Your task to perform on an android device: Open Google Chrome and open the bookmarks view Image 0: 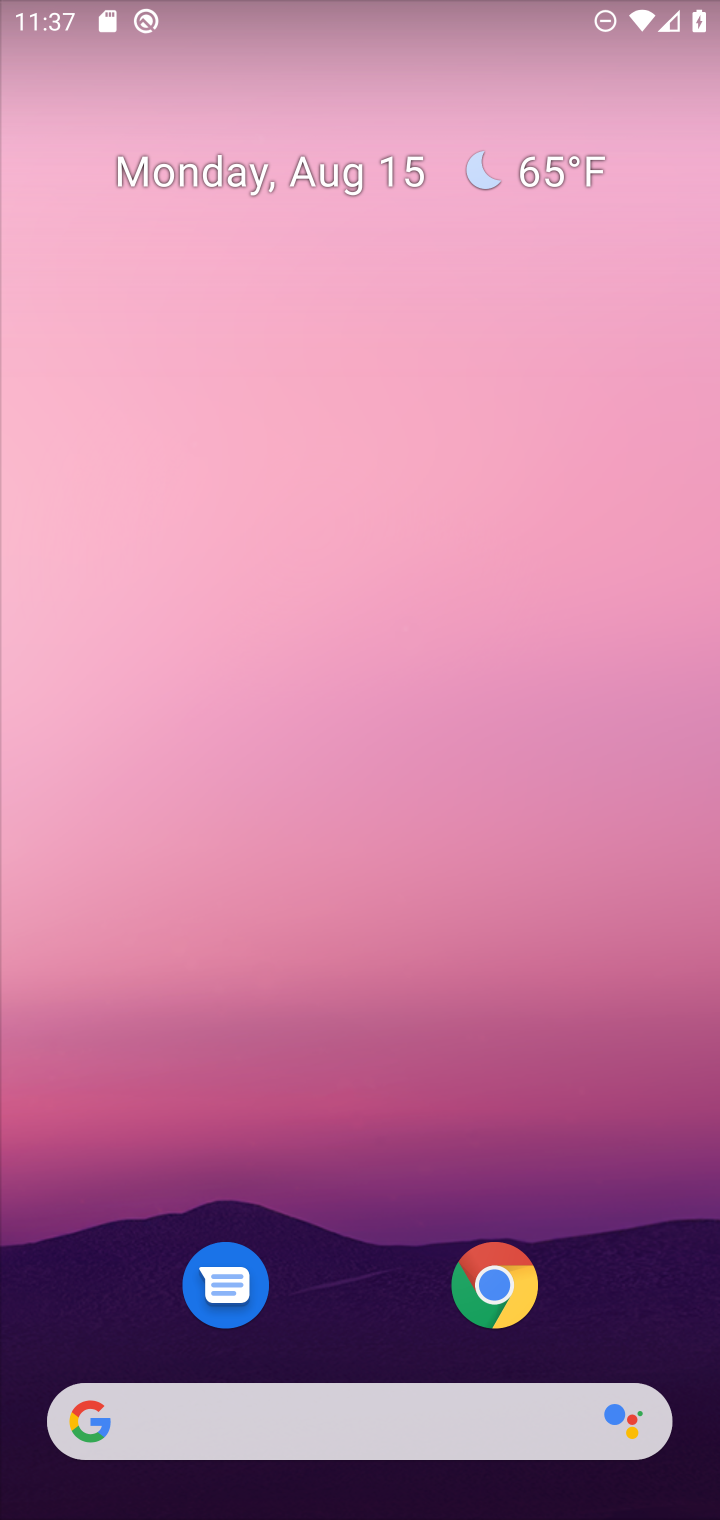
Step 0: click (489, 1269)
Your task to perform on an android device: Open Google Chrome and open the bookmarks view Image 1: 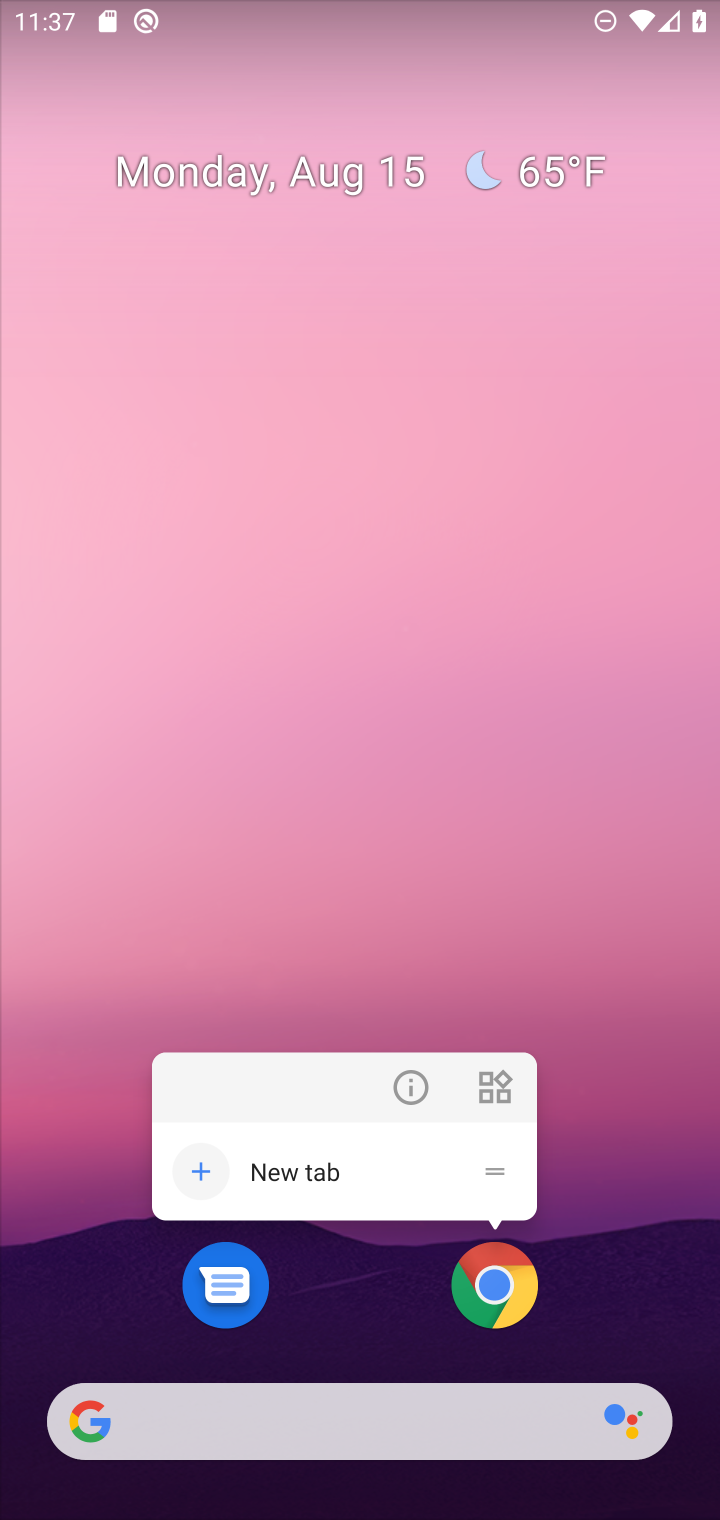
Step 1: click (582, 1183)
Your task to perform on an android device: Open Google Chrome and open the bookmarks view Image 2: 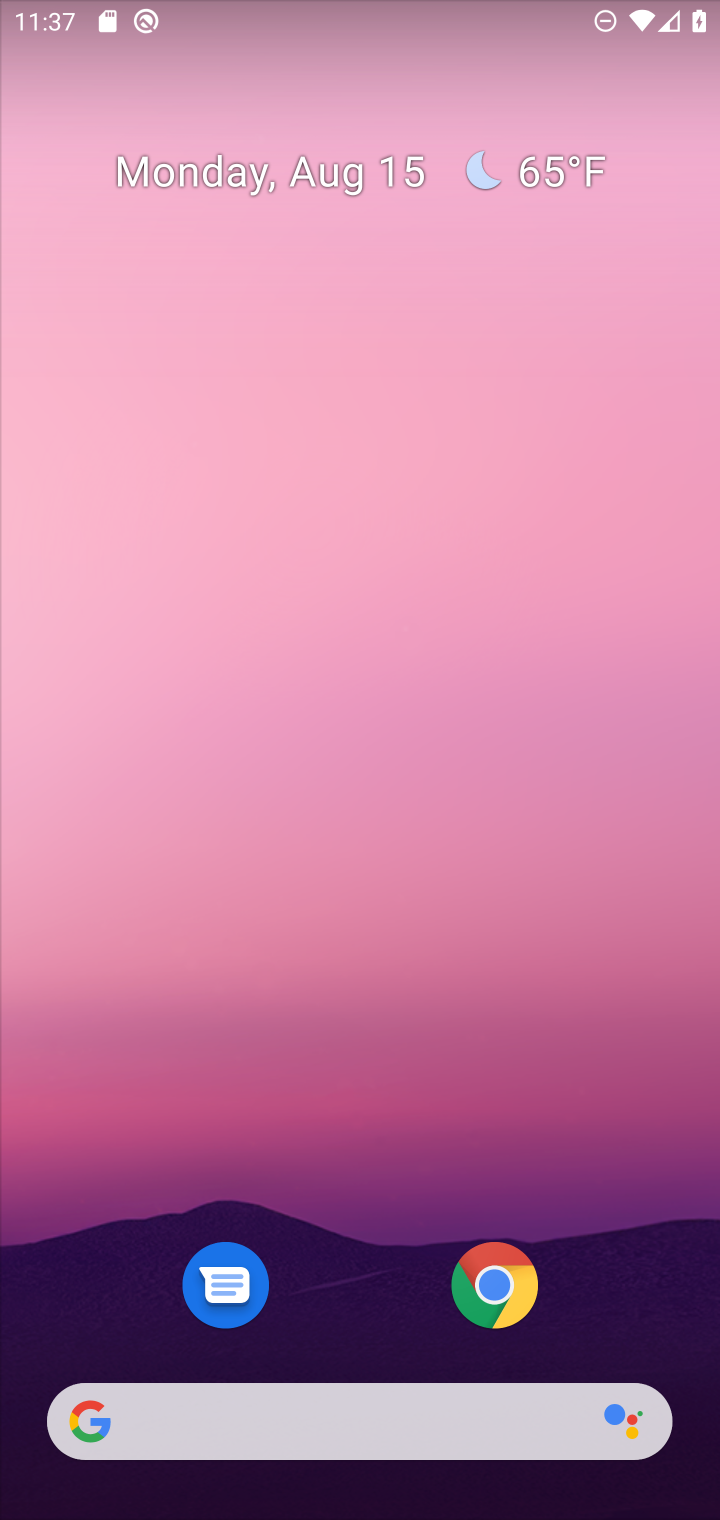
Step 2: drag from (584, 1321) to (614, 42)
Your task to perform on an android device: Open Google Chrome and open the bookmarks view Image 3: 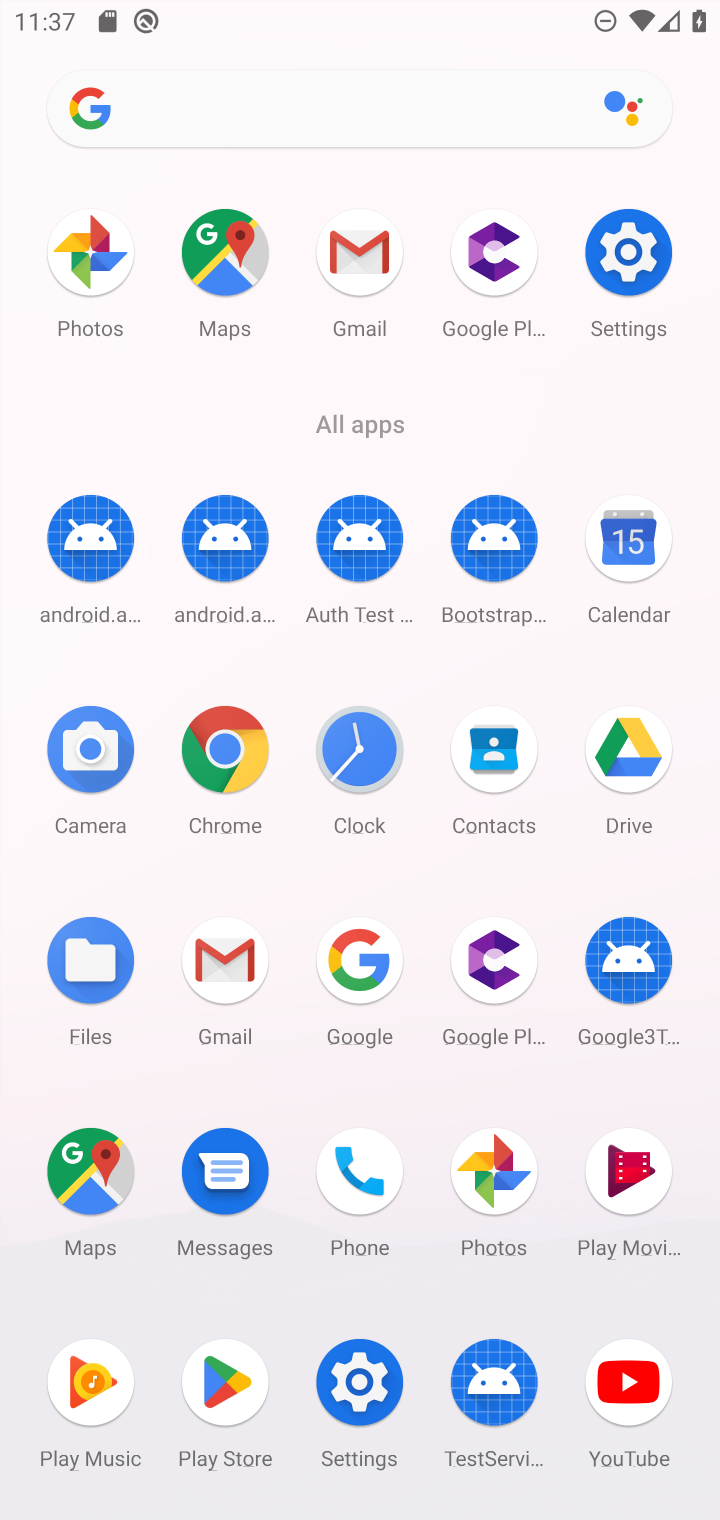
Step 3: click (222, 733)
Your task to perform on an android device: Open Google Chrome and open the bookmarks view Image 4: 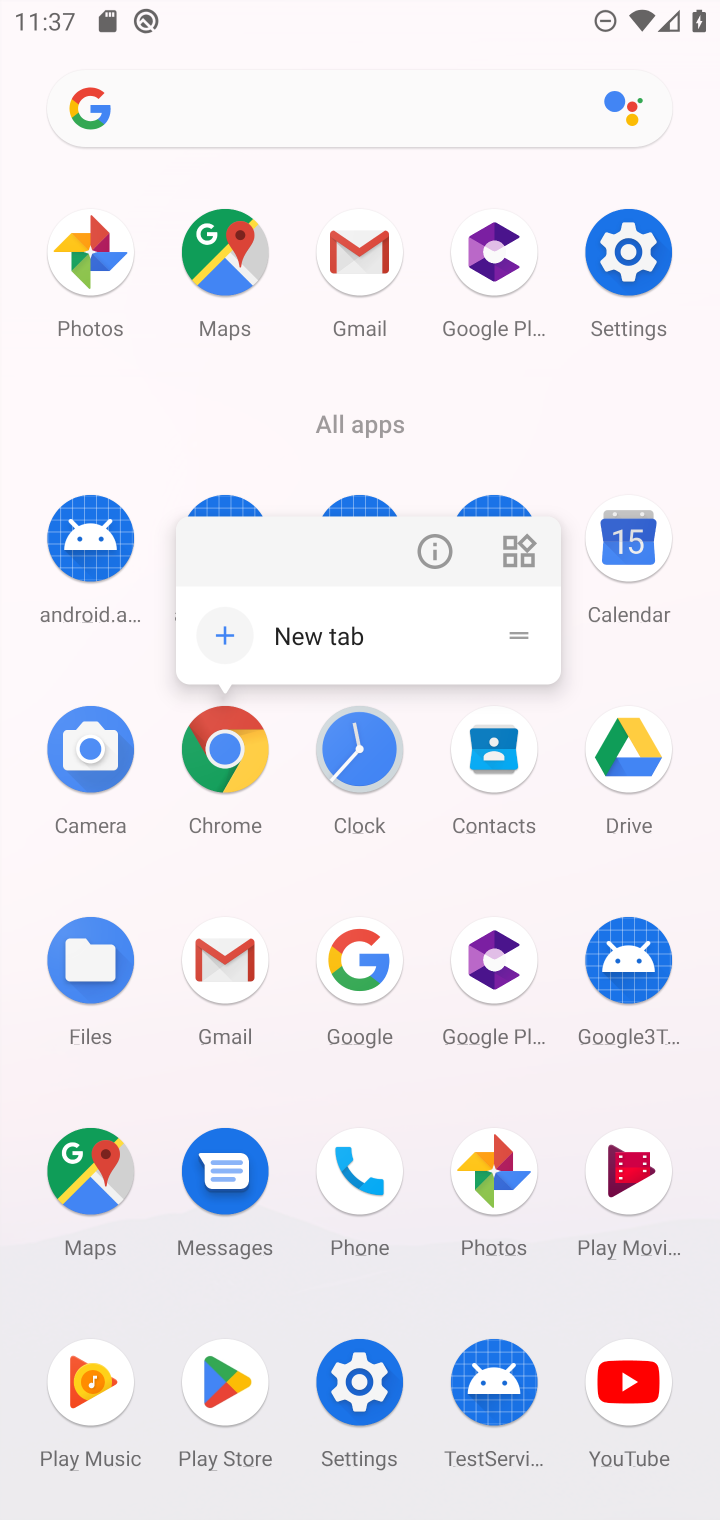
Step 4: click (222, 733)
Your task to perform on an android device: Open Google Chrome and open the bookmarks view Image 5: 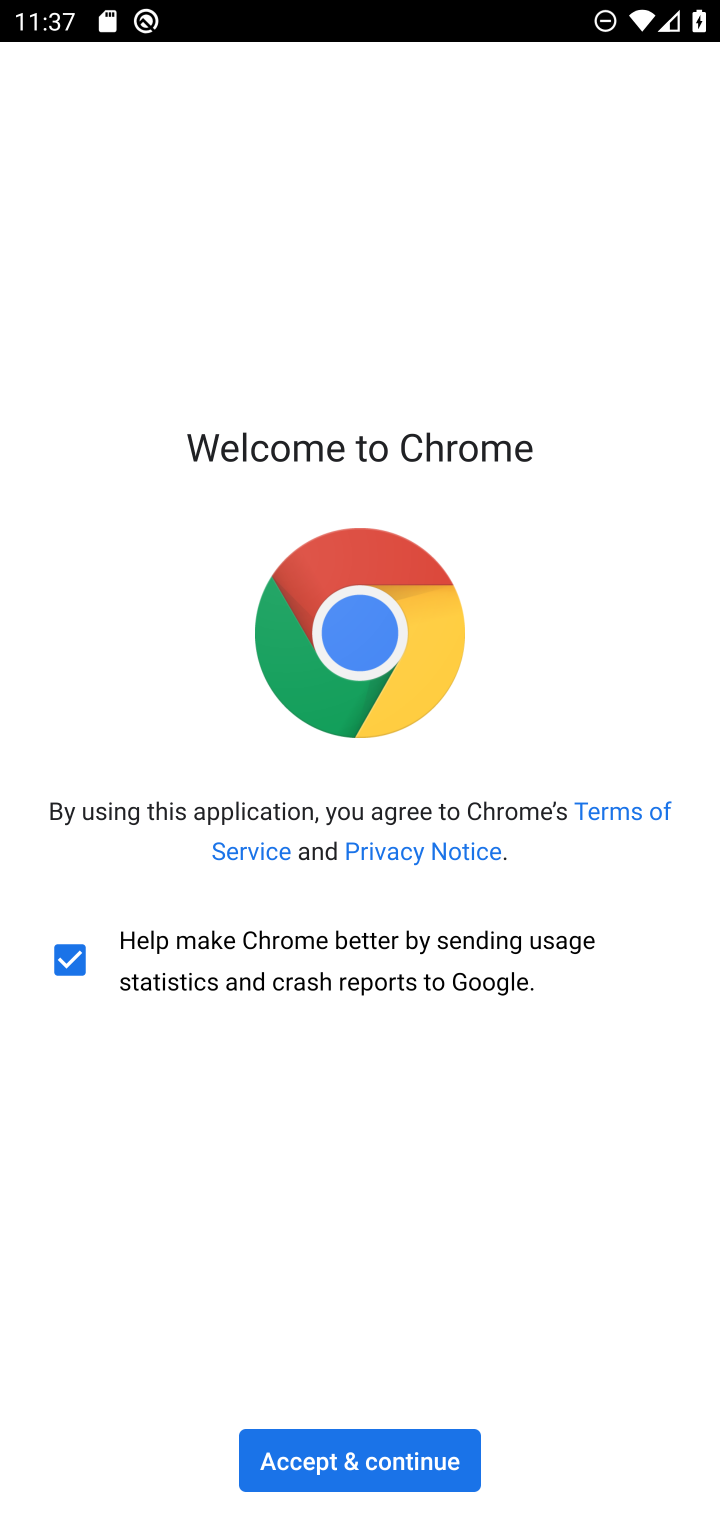
Step 5: click (353, 1460)
Your task to perform on an android device: Open Google Chrome and open the bookmarks view Image 6: 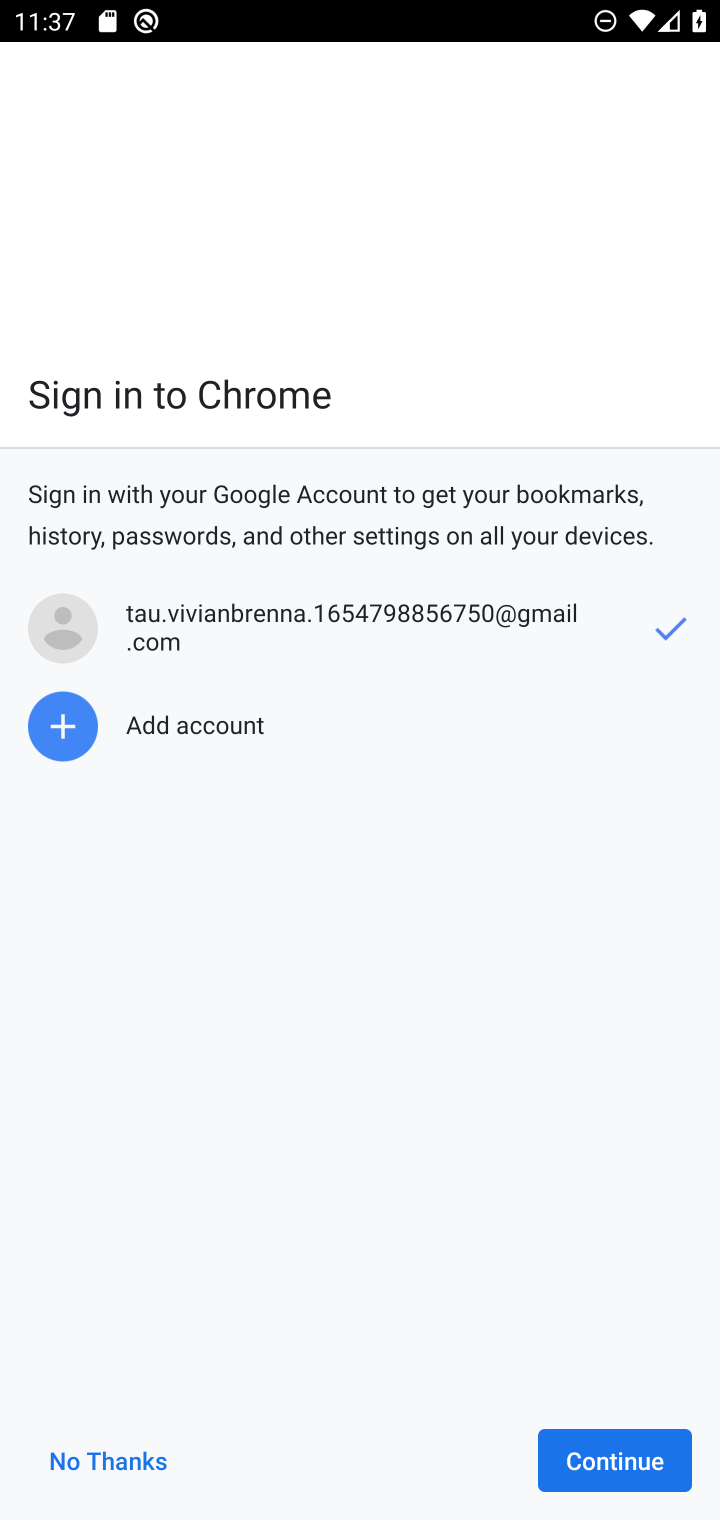
Step 6: click (640, 1457)
Your task to perform on an android device: Open Google Chrome and open the bookmarks view Image 7: 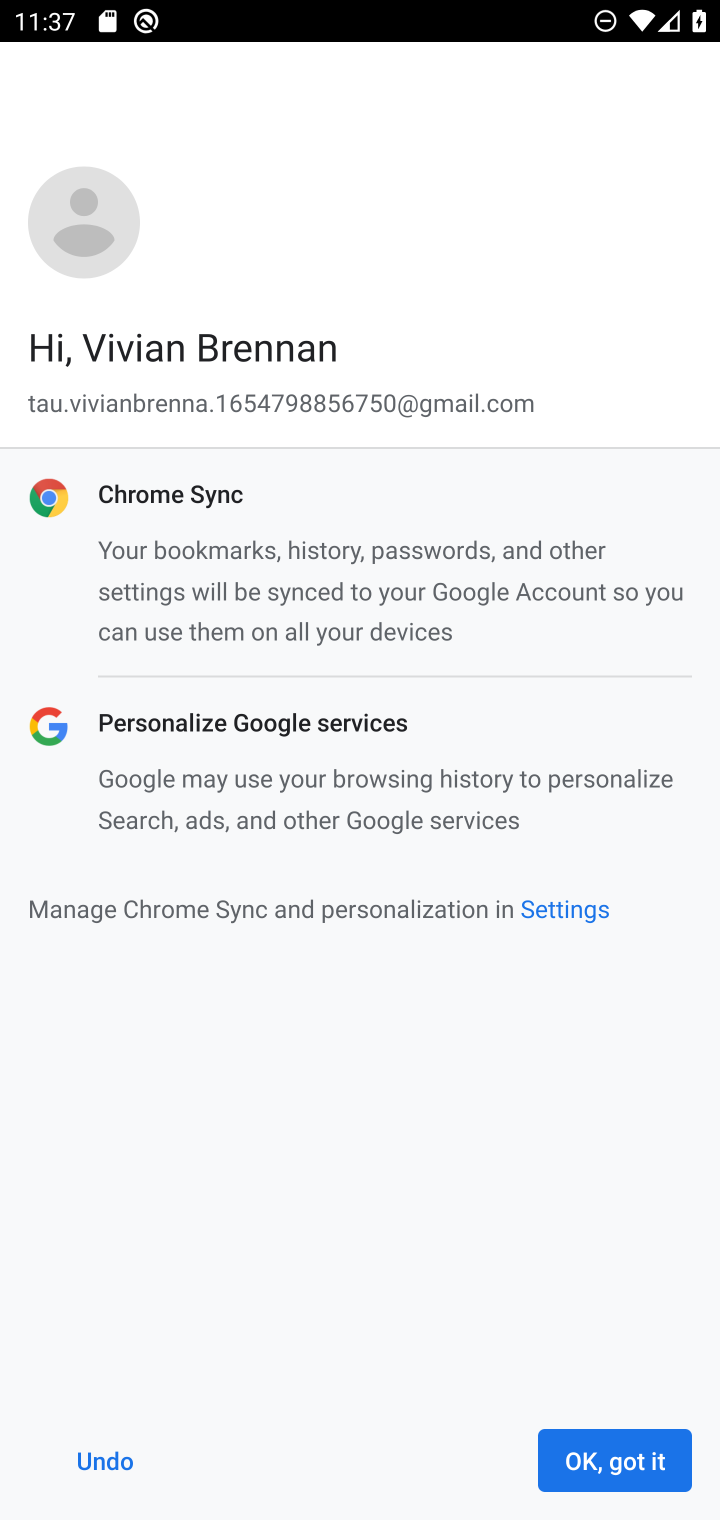
Step 7: click (615, 1444)
Your task to perform on an android device: Open Google Chrome and open the bookmarks view Image 8: 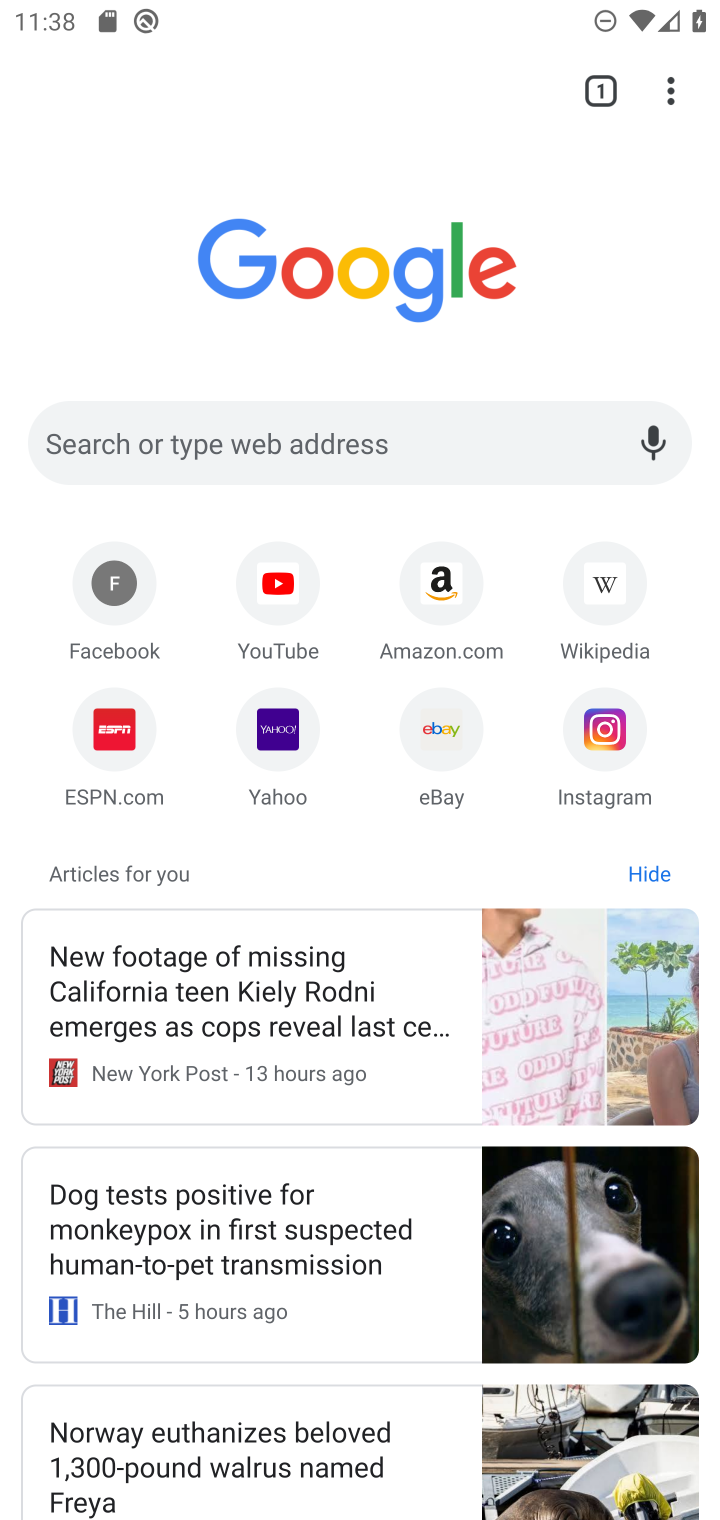
Step 8: click (669, 77)
Your task to perform on an android device: Open Google Chrome and open the bookmarks view Image 9: 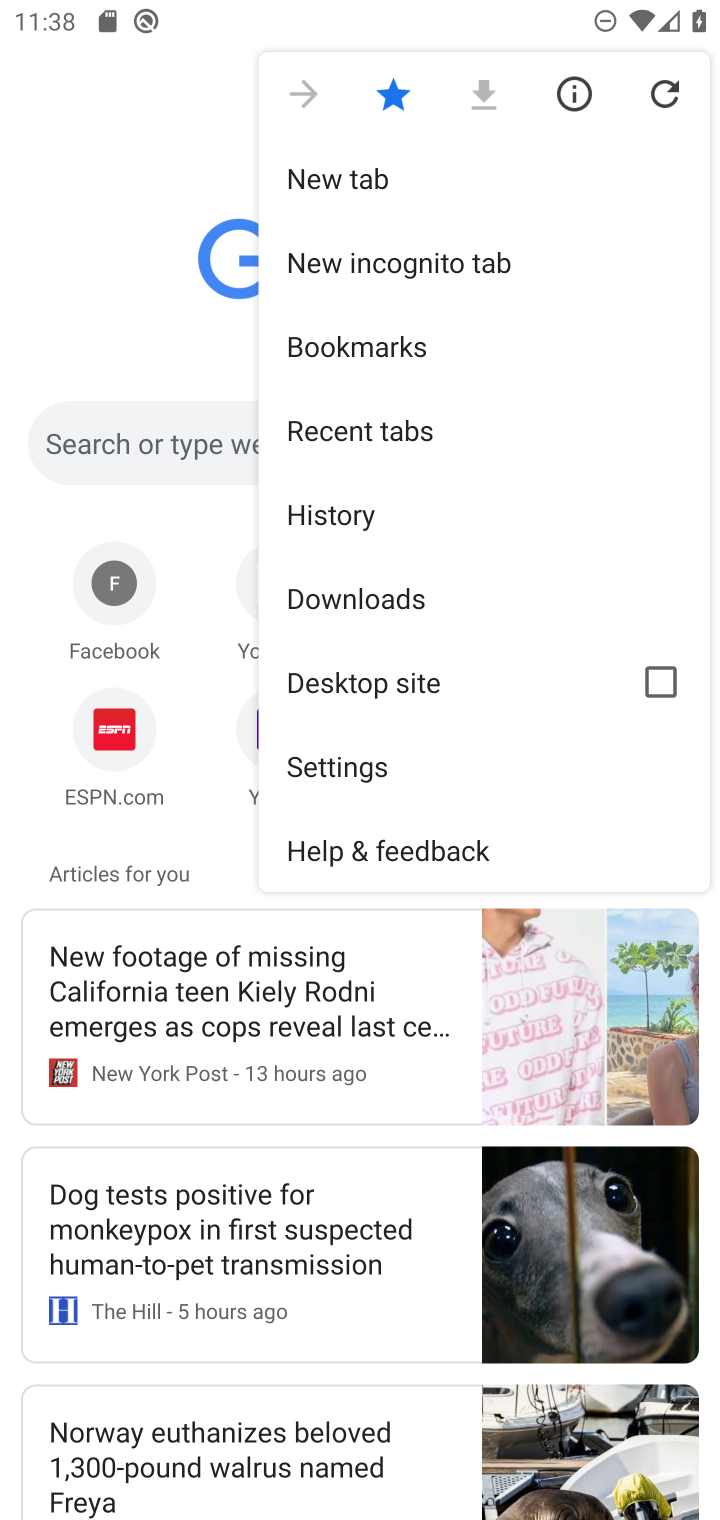
Step 9: click (430, 345)
Your task to perform on an android device: Open Google Chrome and open the bookmarks view Image 10: 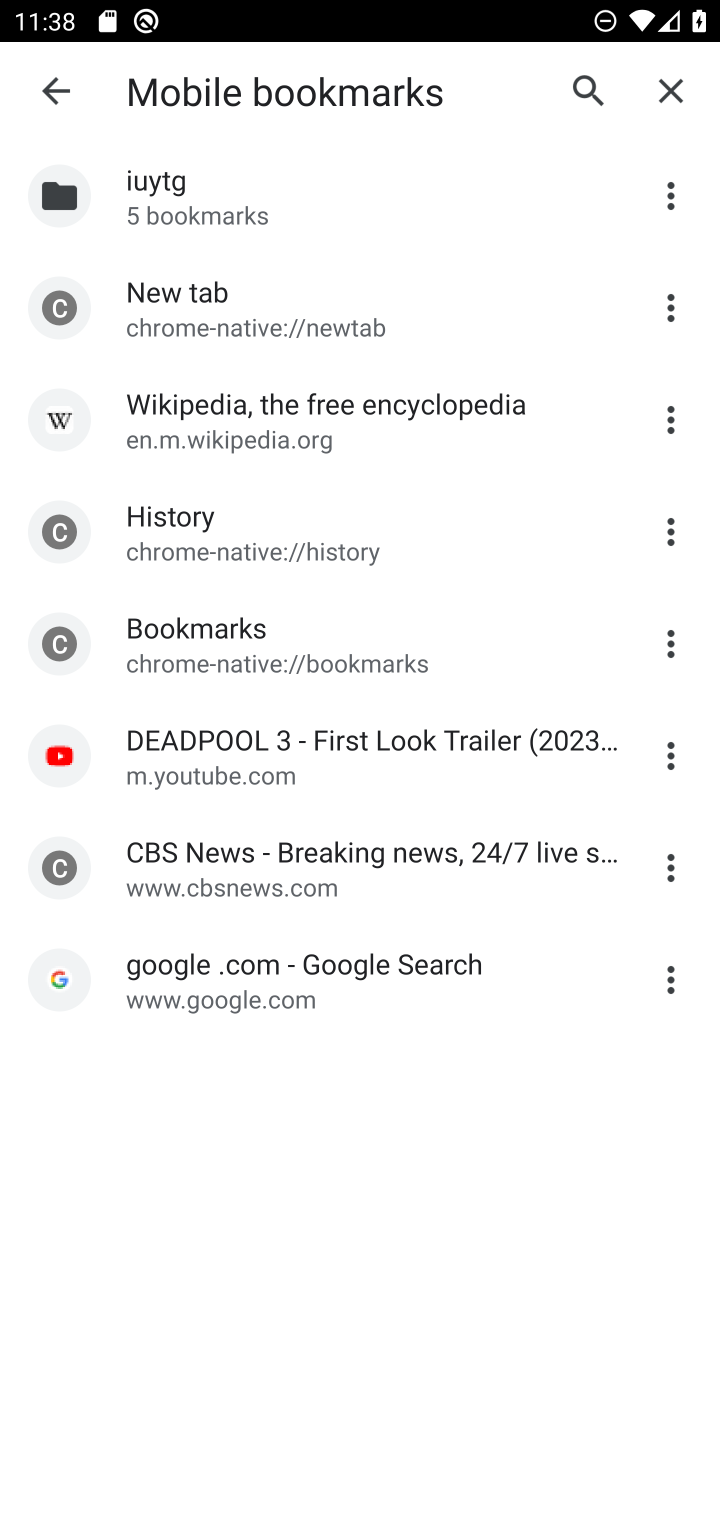
Step 10: task complete